Your task to perform on an android device: Clear all items from cart on newegg.com. Add "usb-c" to the cart on newegg.com Image 0: 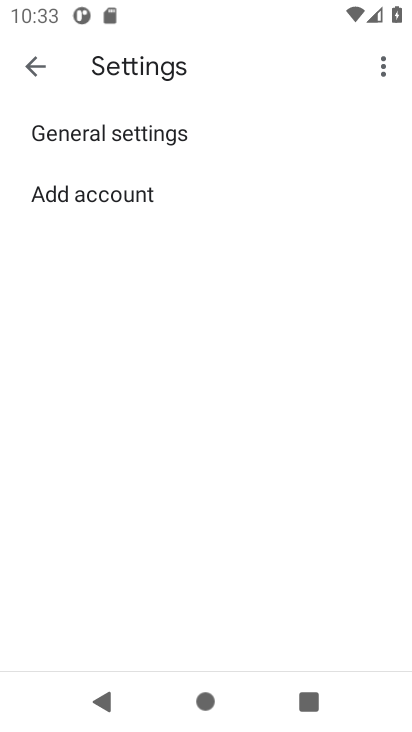
Step 0: press home button
Your task to perform on an android device: Clear all items from cart on newegg.com. Add "usb-c" to the cart on newegg.com Image 1: 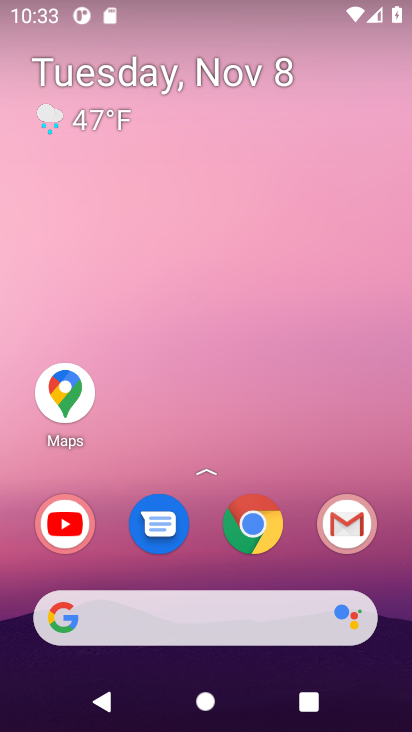
Step 1: click (254, 527)
Your task to perform on an android device: Clear all items from cart on newegg.com. Add "usb-c" to the cart on newegg.com Image 2: 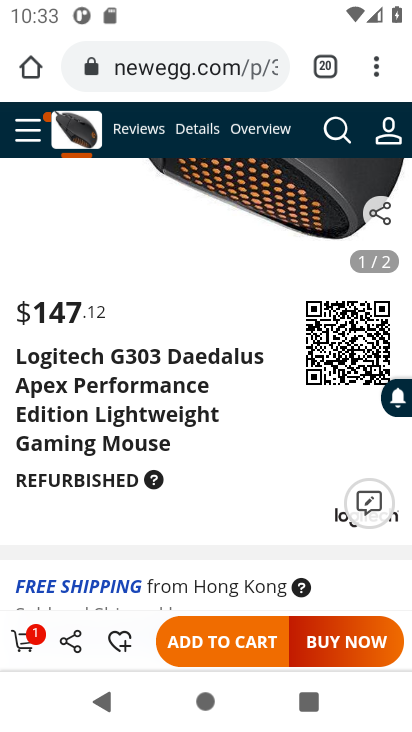
Step 2: drag from (313, 232) to (319, 660)
Your task to perform on an android device: Clear all items from cart on newegg.com. Add "usb-c" to the cart on newegg.com Image 3: 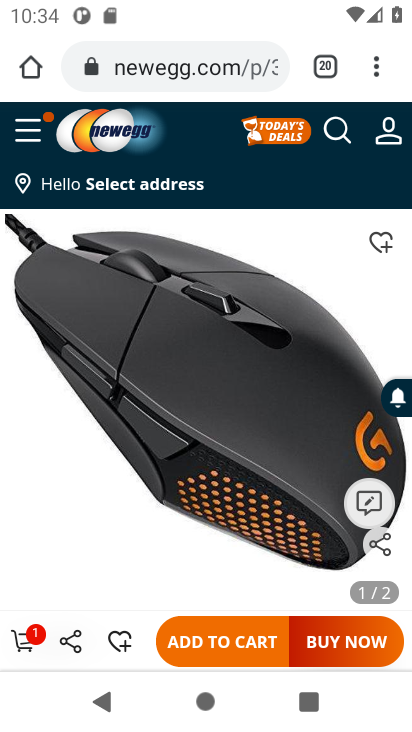
Step 3: drag from (265, 313) to (247, 455)
Your task to perform on an android device: Clear all items from cart on newegg.com. Add "usb-c" to the cart on newegg.com Image 4: 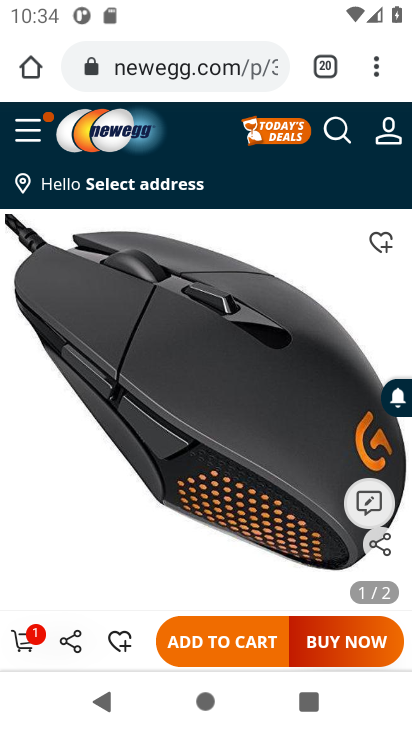
Step 4: click (17, 638)
Your task to perform on an android device: Clear all items from cart on newegg.com. Add "usb-c" to the cart on newegg.com Image 5: 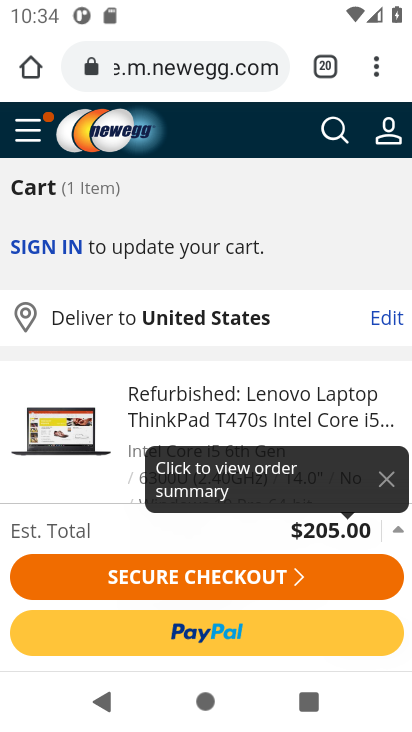
Step 5: drag from (193, 449) to (199, 245)
Your task to perform on an android device: Clear all items from cart on newegg.com. Add "usb-c" to the cart on newegg.com Image 6: 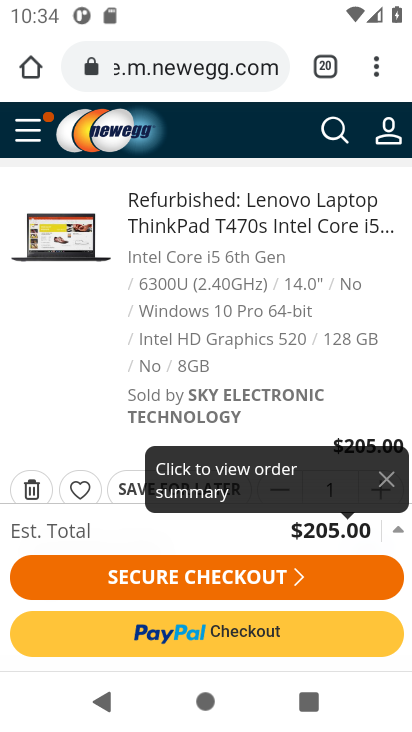
Step 6: click (33, 490)
Your task to perform on an android device: Clear all items from cart on newegg.com. Add "usb-c" to the cart on newegg.com Image 7: 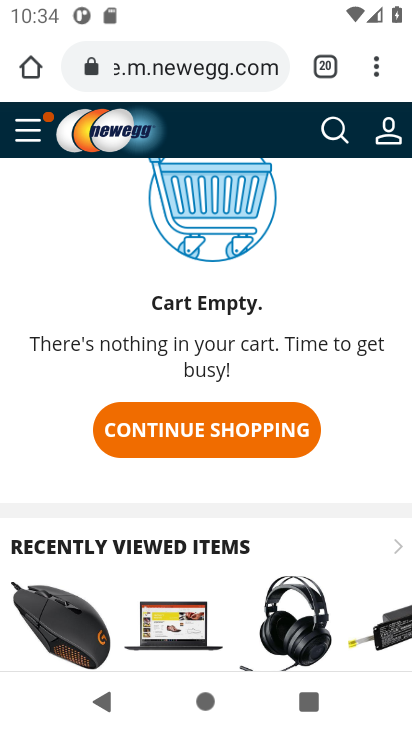
Step 7: click (336, 128)
Your task to perform on an android device: Clear all items from cart on newegg.com. Add "usb-c" to the cart on newegg.com Image 8: 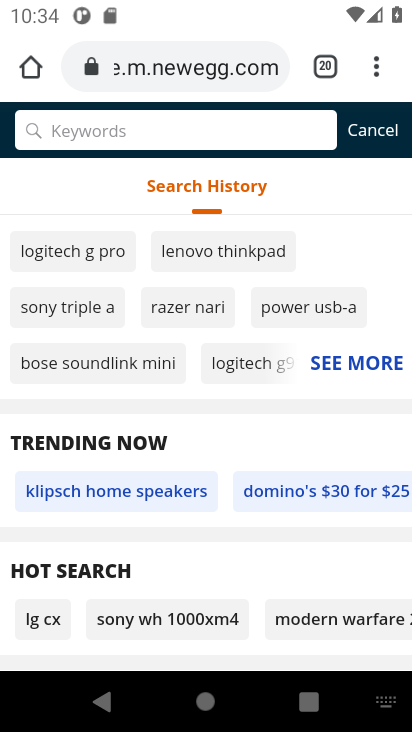
Step 8: type "usb-c"
Your task to perform on an android device: Clear all items from cart on newegg.com. Add "usb-c" to the cart on newegg.com Image 9: 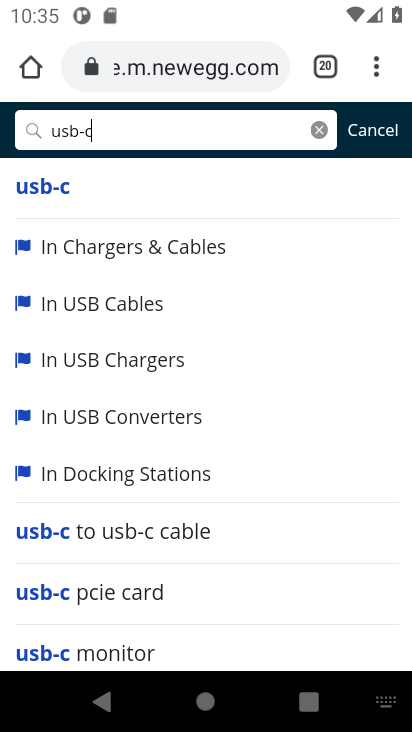
Step 9: click (53, 190)
Your task to perform on an android device: Clear all items from cart on newegg.com. Add "usb-c" to the cart on newegg.com Image 10: 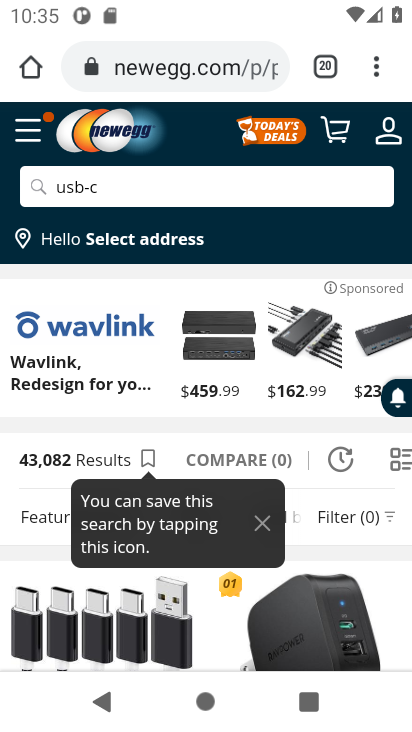
Step 10: drag from (162, 413) to (154, 294)
Your task to perform on an android device: Clear all items from cart on newegg.com. Add "usb-c" to the cart on newegg.com Image 11: 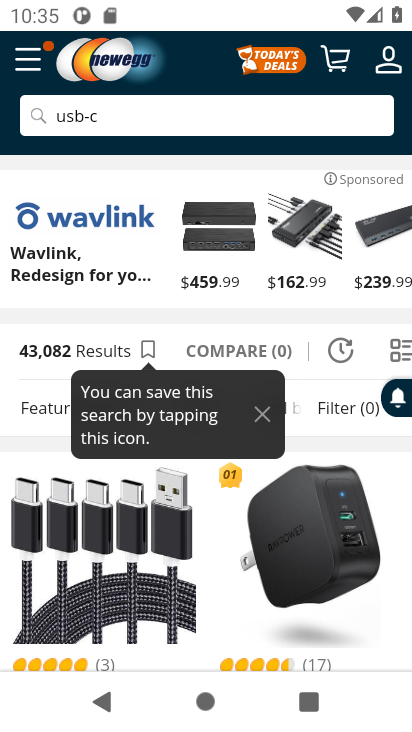
Step 11: drag from (169, 504) to (166, 283)
Your task to perform on an android device: Clear all items from cart on newegg.com. Add "usb-c" to the cart on newegg.com Image 12: 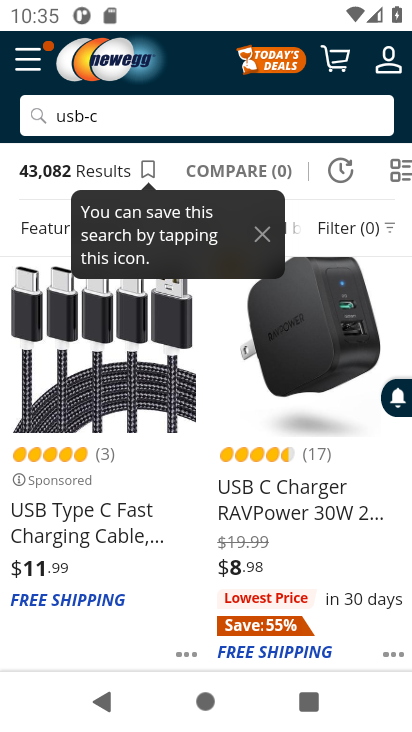
Step 12: click (64, 434)
Your task to perform on an android device: Clear all items from cart on newegg.com. Add "usb-c" to the cart on newegg.com Image 13: 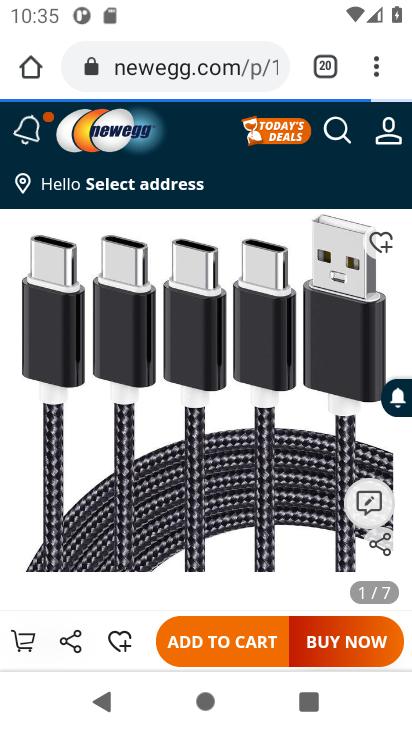
Step 13: click (221, 644)
Your task to perform on an android device: Clear all items from cart on newegg.com. Add "usb-c" to the cart on newegg.com Image 14: 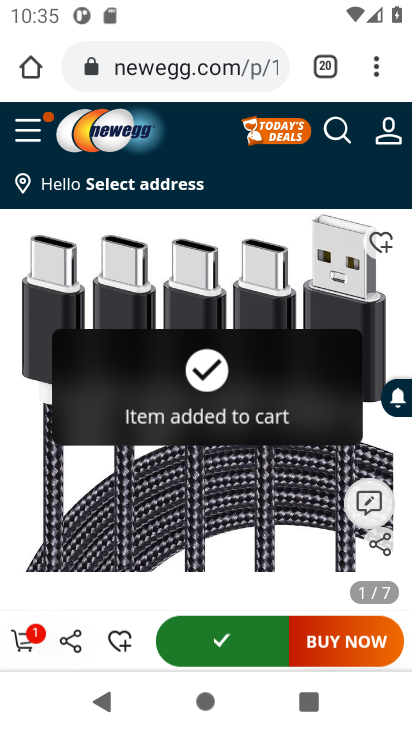
Step 14: task complete